Your task to perform on an android device: open the mobile data screen to see how much data has been used Image 0: 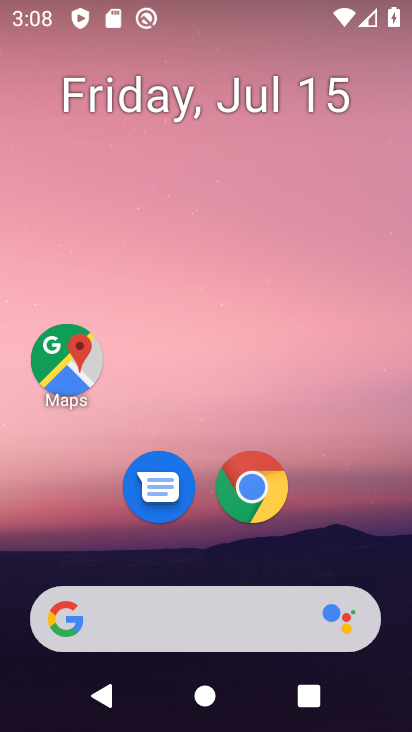
Step 0: drag from (227, 534) to (411, 538)
Your task to perform on an android device: open the mobile data screen to see how much data has been used Image 1: 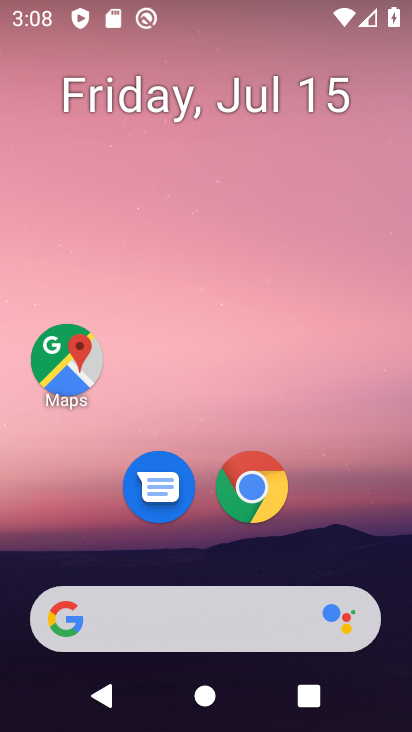
Step 1: drag from (222, 633) to (379, 7)
Your task to perform on an android device: open the mobile data screen to see how much data has been used Image 2: 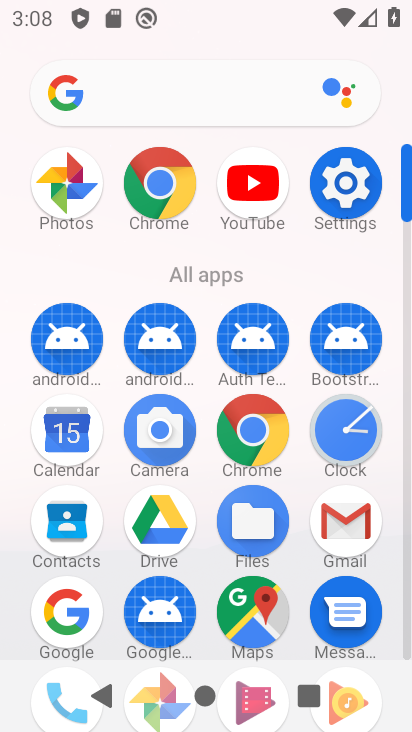
Step 2: click (320, 214)
Your task to perform on an android device: open the mobile data screen to see how much data has been used Image 3: 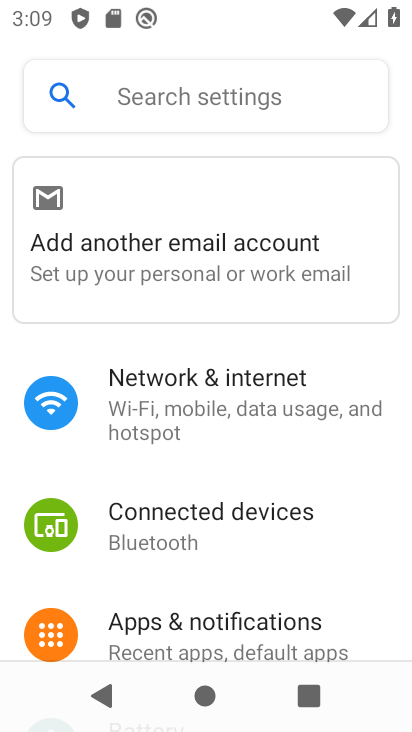
Step 3: click (173, 391)
Your task to perform on an android device: open the mobile data screen to see how much data has been used Image 4: 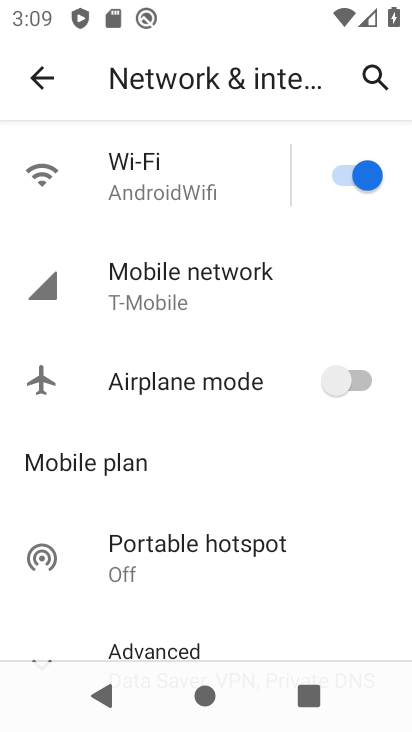
Step 4: click (222, 287)
Your task to perform on an android device: open the mobile data screen to see how much data has been used Image 5: 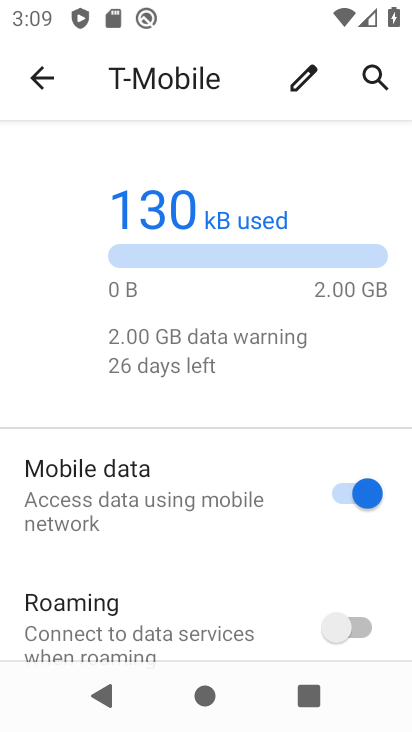
Step 5: drag from (191, 566) to (263, 172)
Your task to perform on an android device: open the mobile data screen to see how much data has been used Image 6: 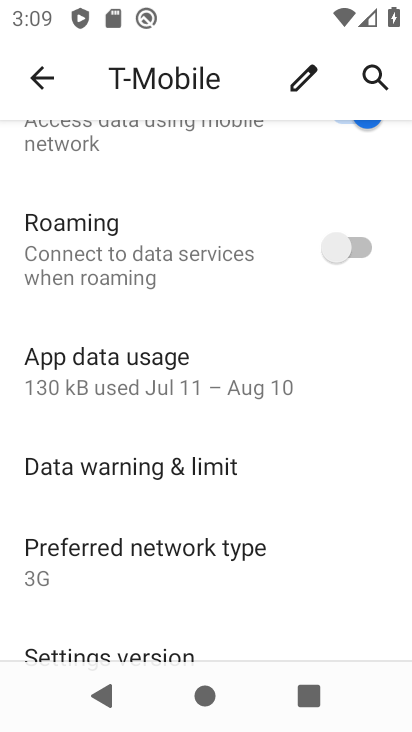
Step 6: click (147, 383)
Your task to perform on an android device: open the mobile data screen to see how much data has been used Image 7: 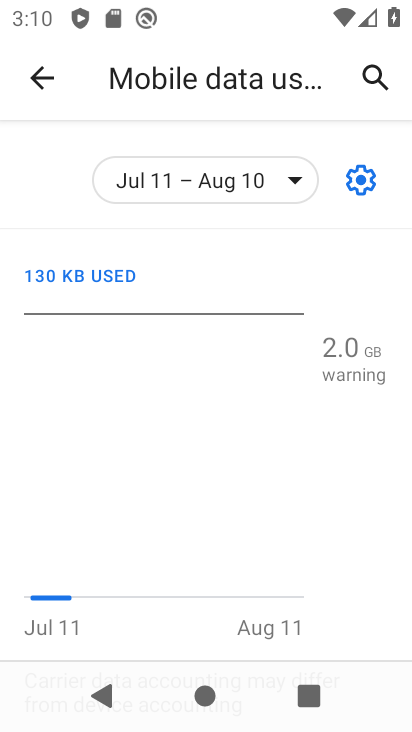
Step 7: task complete